Your task to perform on an android device: Open the map Image 0: 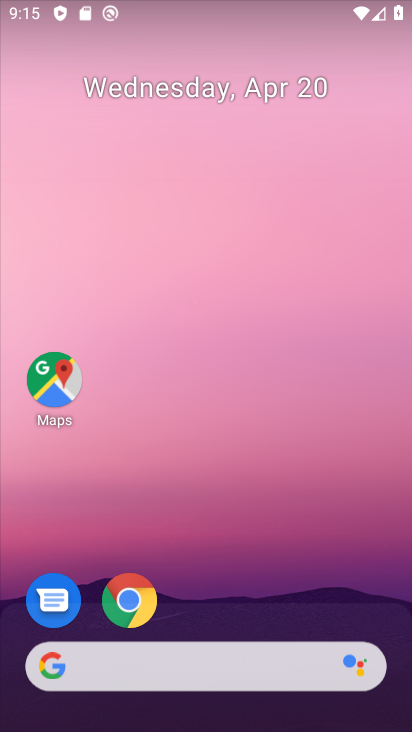
Step 0: click (56, 387)
Your task to perform on an android device: Open the map Image 1: 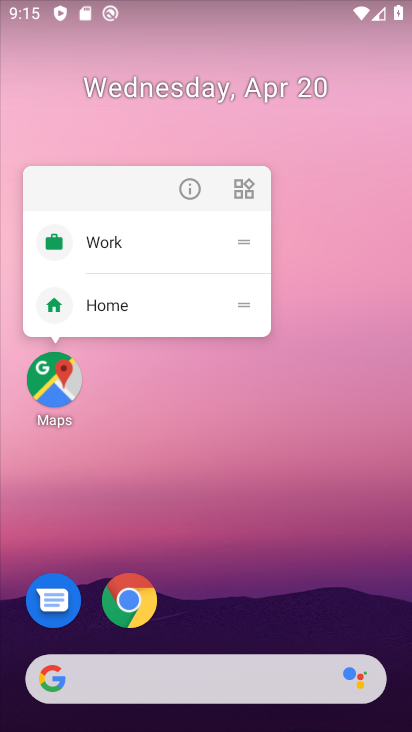
Step 1: click (48, 378)
Your task to perform on an android device: Open the map Image 2: 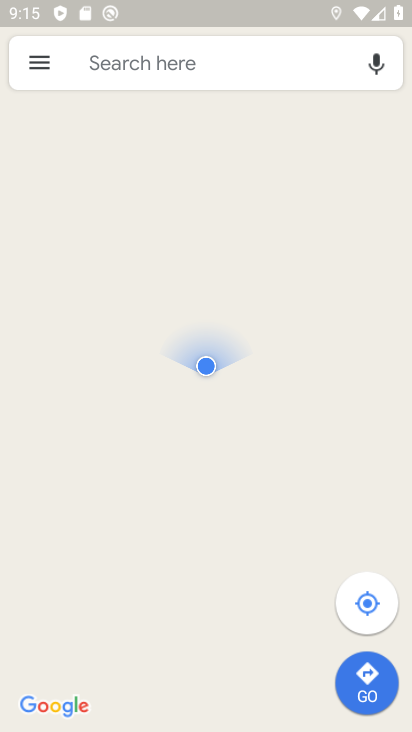
Step 2: task complete